Your task to perform on an android device: Turn off the flashlight Image 0: 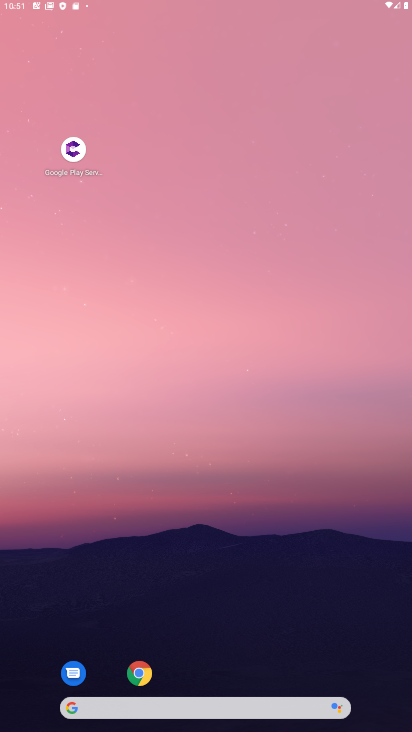
Step 0: click (140, 223)
Your task to perform on an android device: Turn off the flashlight Image 1: 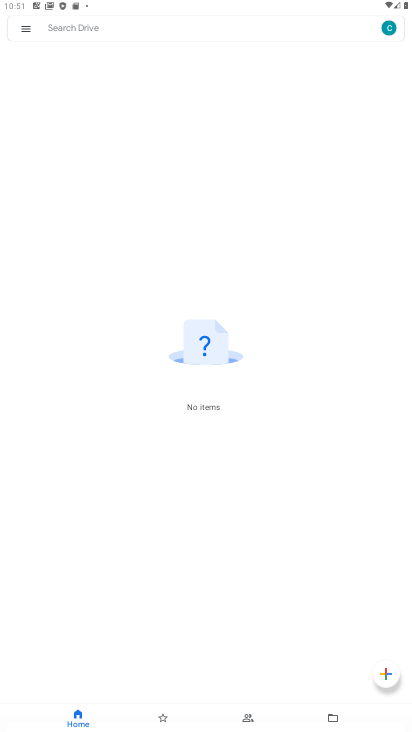
Step 1: press home button
Your task to perform on an android device: Turn off the flashlight Image 2: 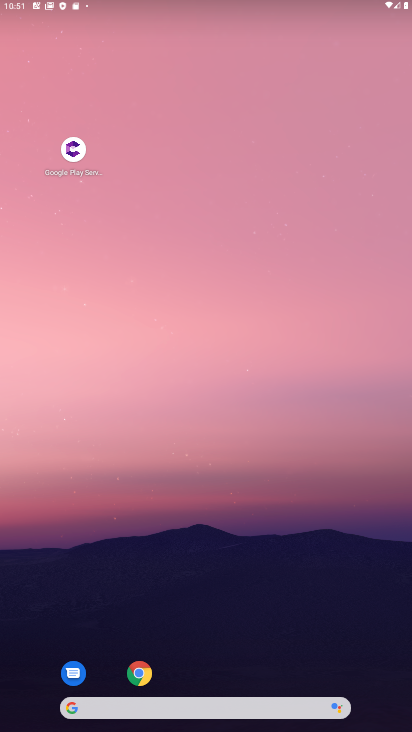
Step 2: drag from (156, 601) to (113, 162)
Your task to perform on an android device: Turn off the flashlight Image 3: 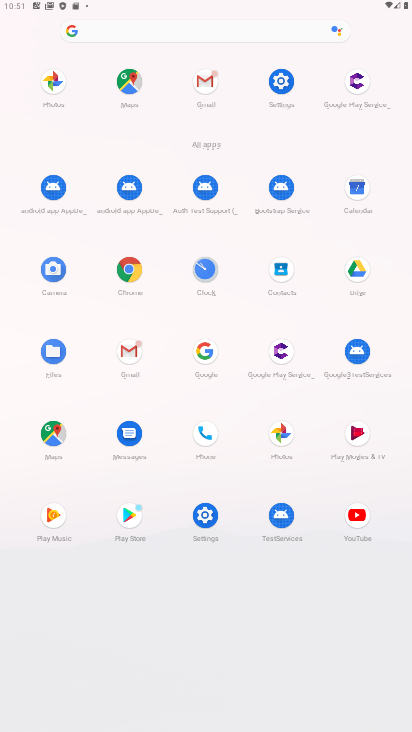
Step 3: click (276, 75)
Your task to perform on an android device: Turn off the flashlight Image 4: 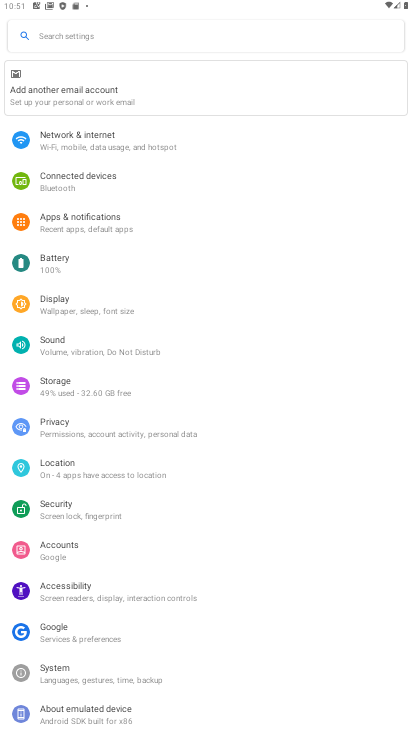
Step 4: task complete